Your task to perform on an android device: uninstall "Google Maps" Image 0: 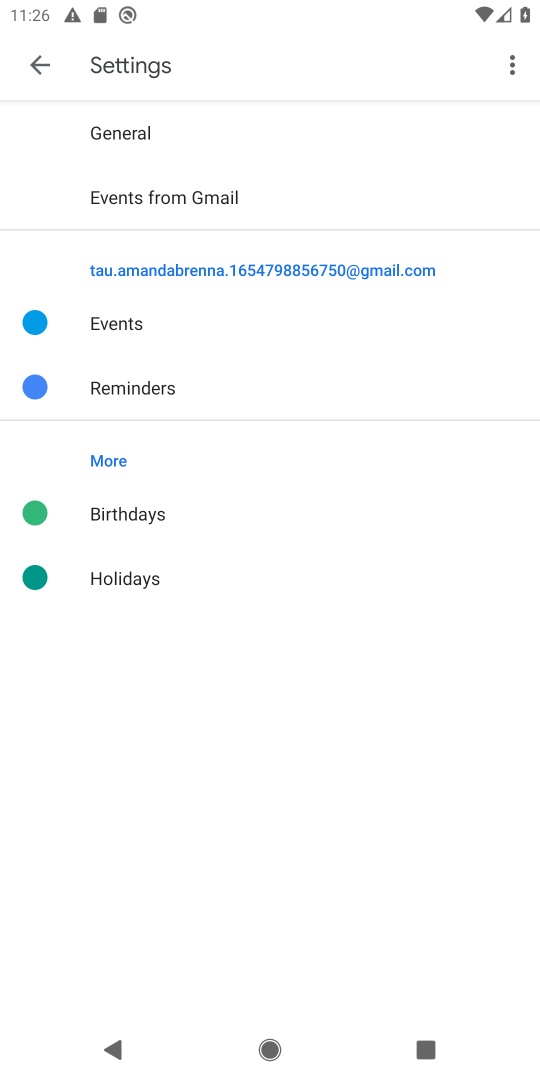
Step 0: press home button
Your task to perform on an android device: uninstall "Google Maps" Image 1: 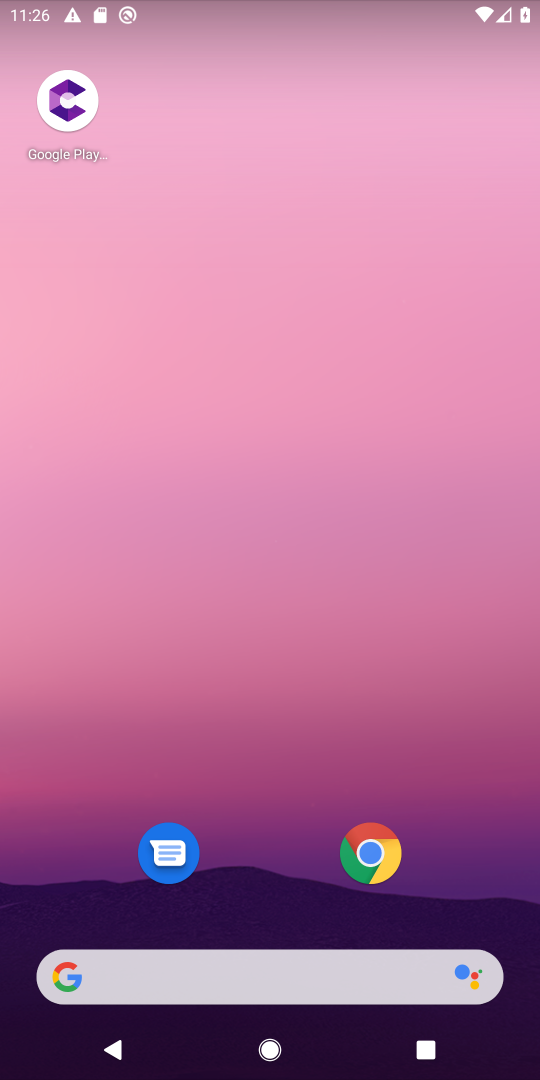
Step 1: drag from (222, 885) to (284, 212)
Your task to perform on an android device: uninstall "Google Maps" Image 2: 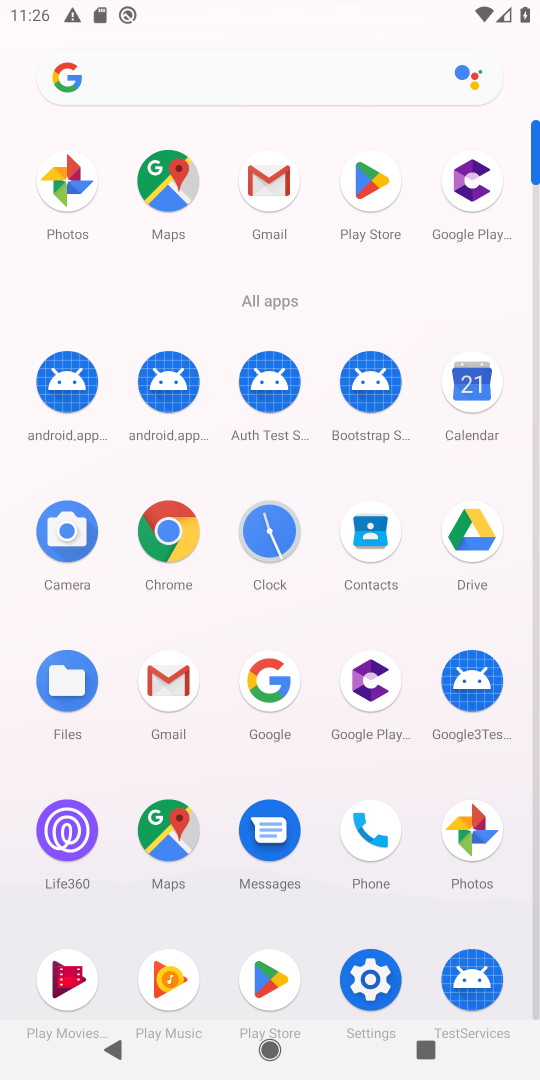
Step 2: click (354, 180)
Your task to perform on an android device: uninstall "Google Maps" Image 3: 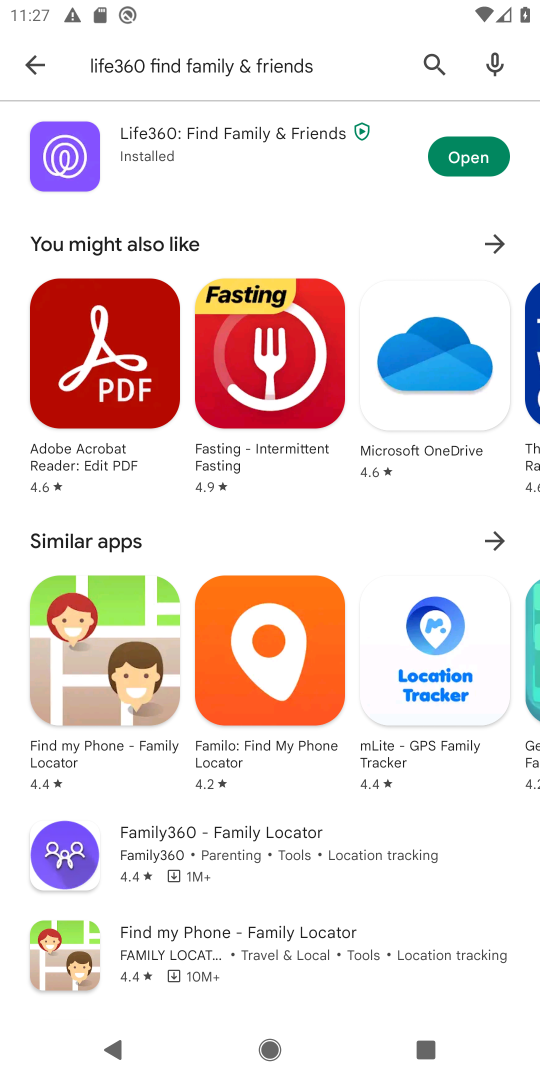
Step 3: click (36, 53)
Your task to perform on an android device: uninstall "Google Maps" Image 4: 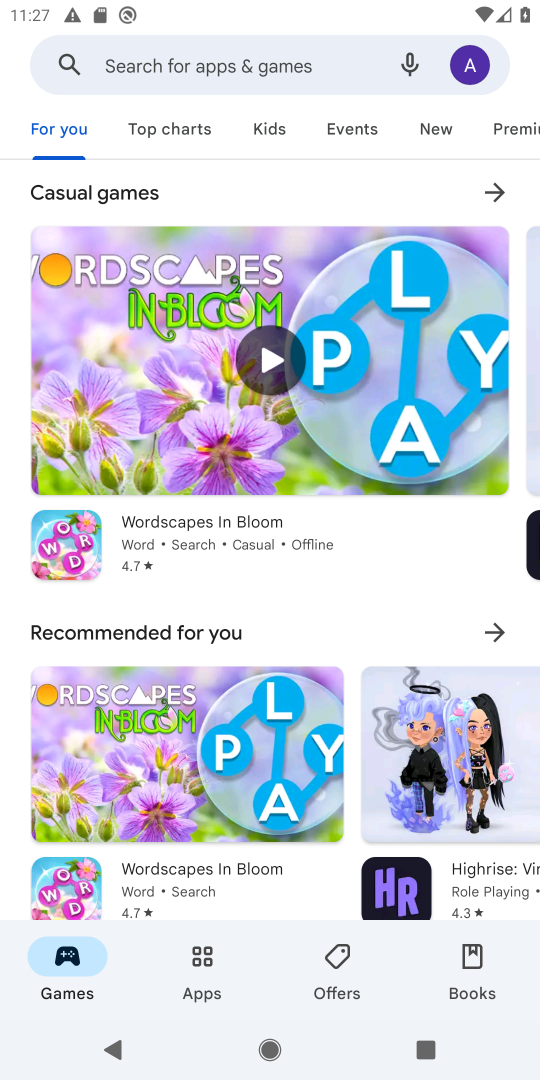
Step 4: click (198, 59)
Your task to perform on an android device: uninstall "Google Maps" Image 5: 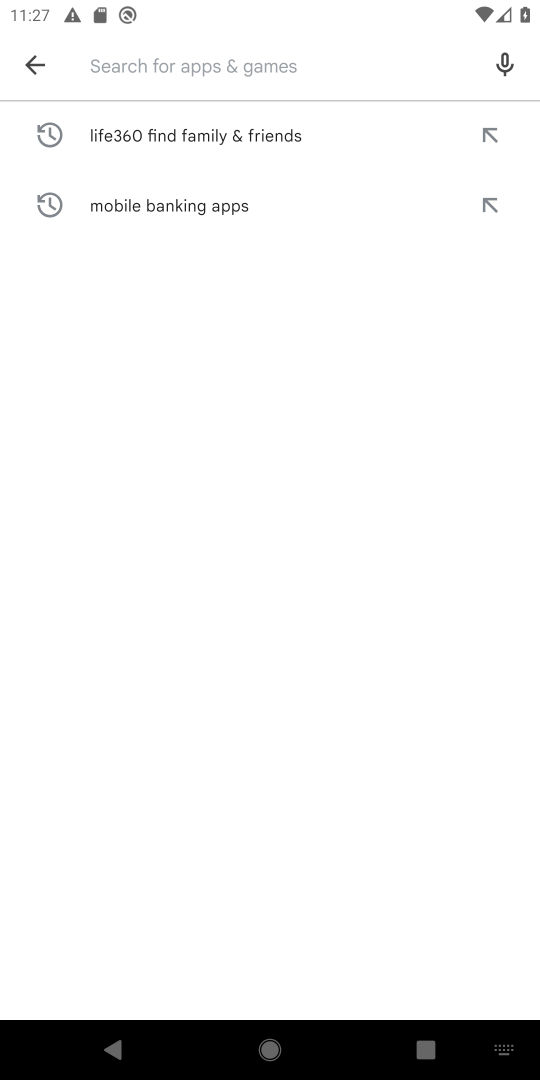
Step 5: click (215, 70)
Your task to perform on an android device: uninstall "Google Maps" Image 6: 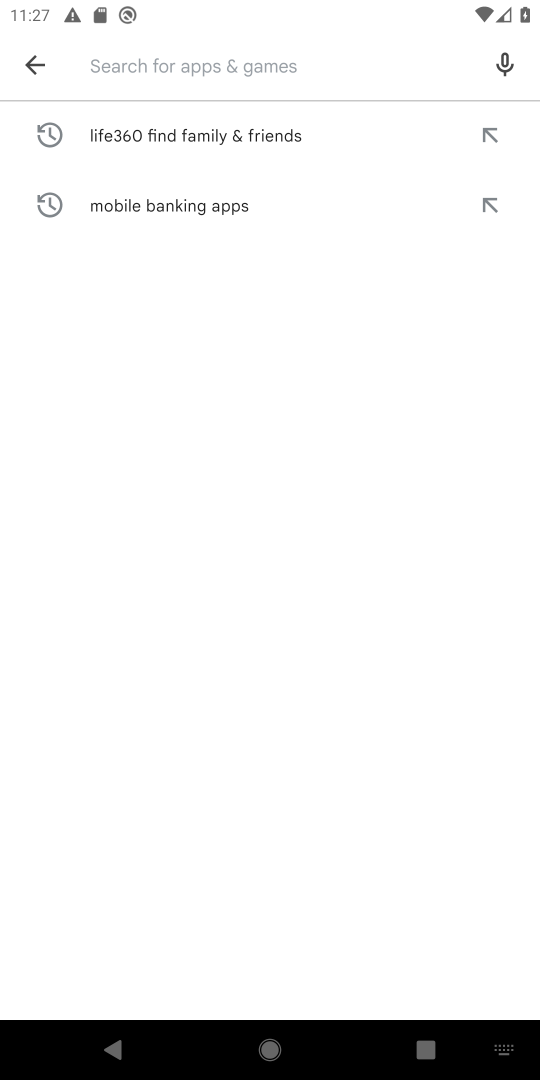
Step 6: type "Google Maps "
Your task to perform on an android device: uninstall "Google Maps" Image 7: 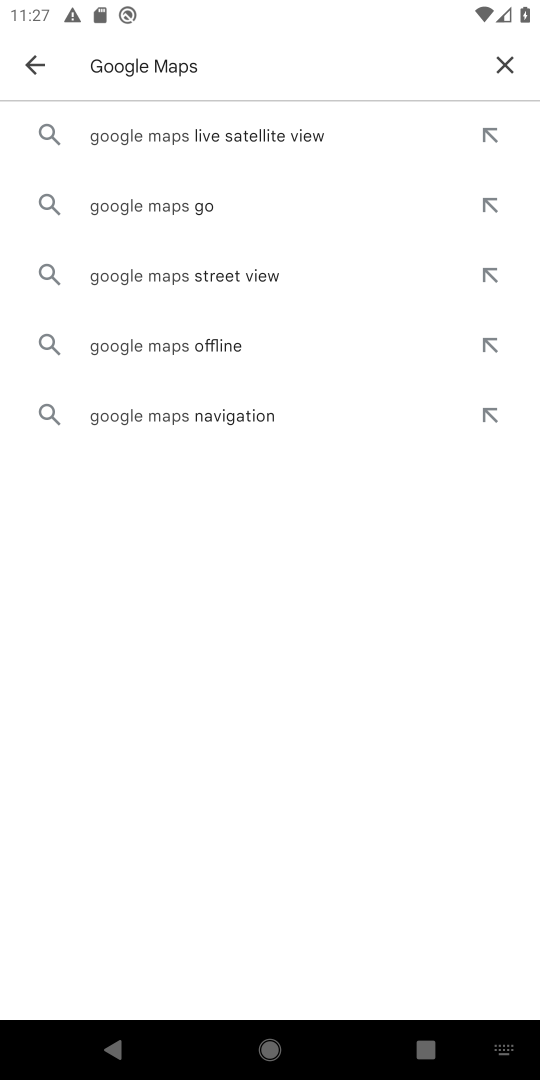
Step 7: click (214, 218)
Your task to perform on an android device: uninstall "Google Maps" Image 8: 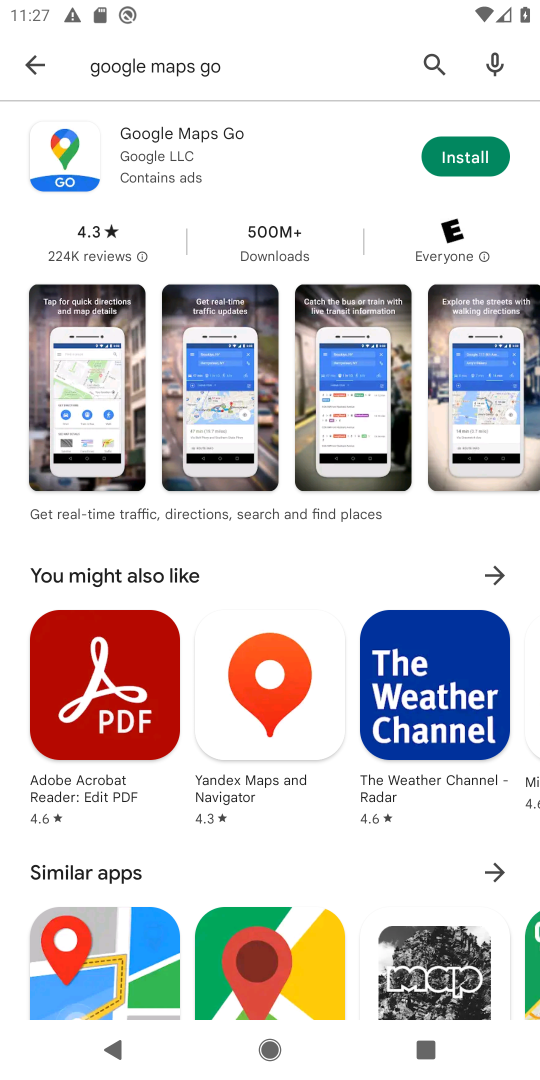
Step 8: click (175, 141)
Your task to perform on an android device: uninstall "Google Maps" Image 9: 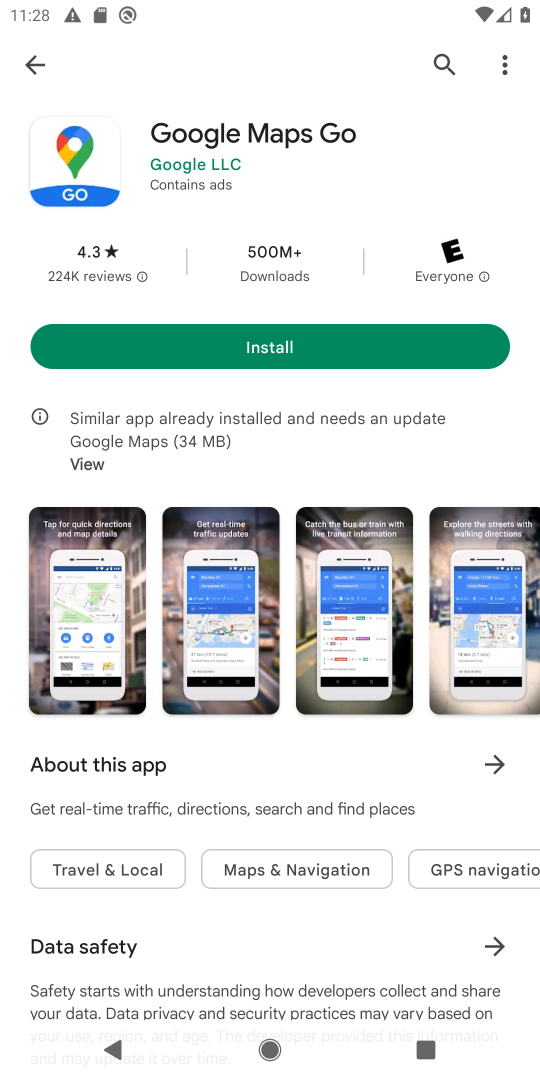
Step 9: task complete